Your task to perform on an android device: Show me popular games on the Play Store Image 0: 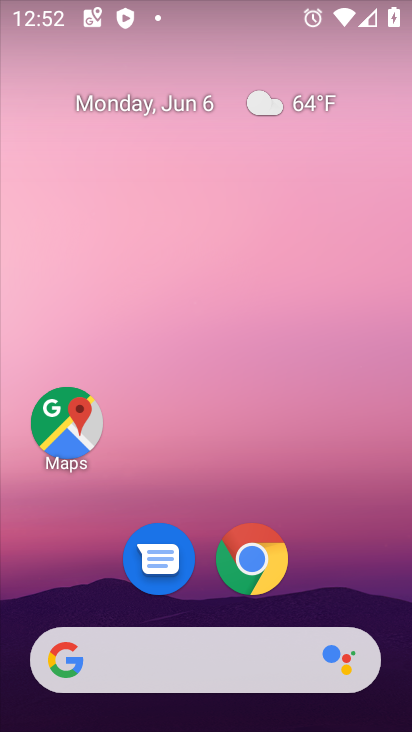
Step 0: drag from (303, 700) to (203, 234)
Your task to perform on an android device: Show me popular games on the Play Store Image 1: 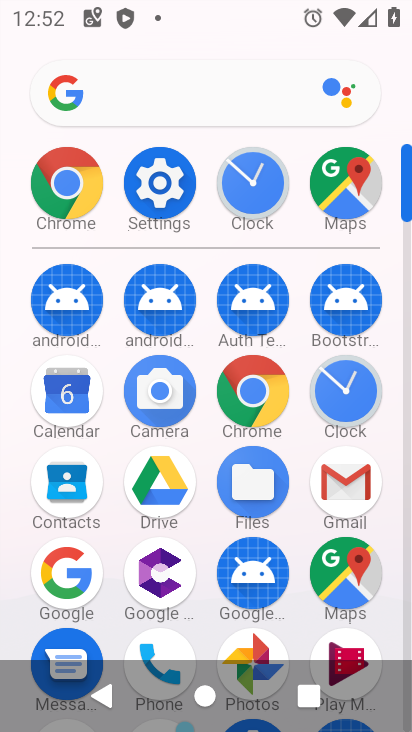
Step 1: drag from (208, 588) to (187, 411)
Your task to perform on an android device: Show me popular games on the Play Store Image 2: 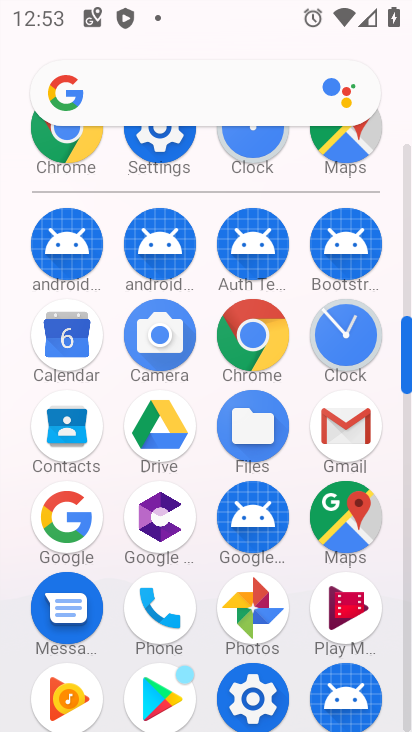
Step 2: click (155, 708)
Your task to perform on an android device: Show me popular games on the Play Store Image 3: 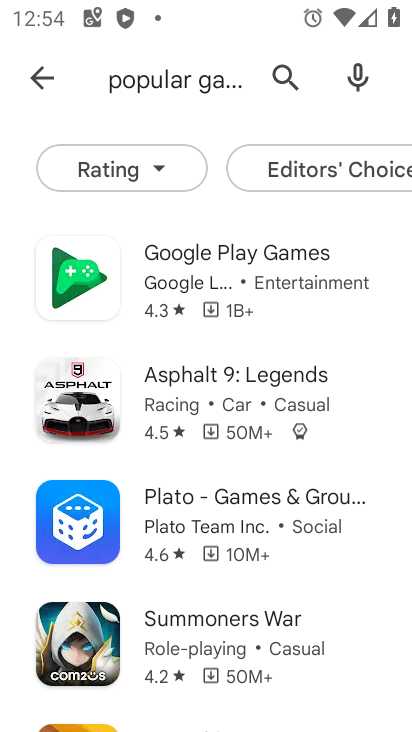
Step 3: task complete